Your task to perform on an android device: Open network settings Image 0: 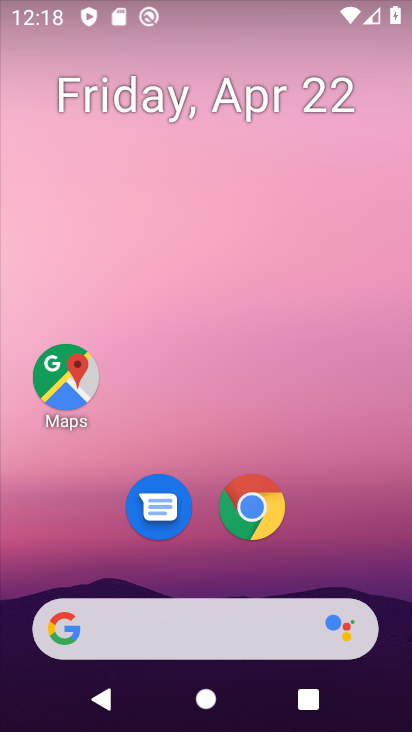
Step 0: drag from (329, 367) to (290, 109)
Your task to perform on an android device: Open network settings Image 1: 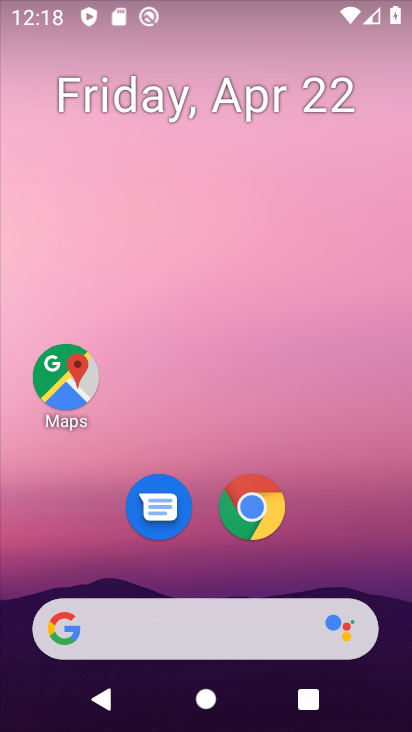
Step 1: drag from (350, 502) to (315, 160)
Your task to perform on an android device: Open network settings Image 2: 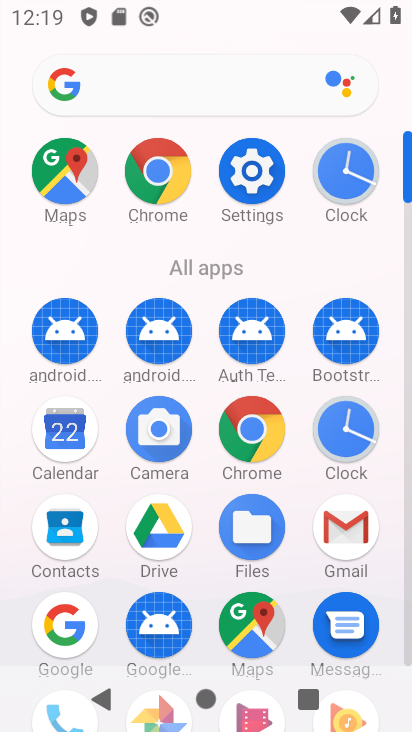
Step 2: click (262, 171)
Your task to perform on an android device: Open network settings Image 3: 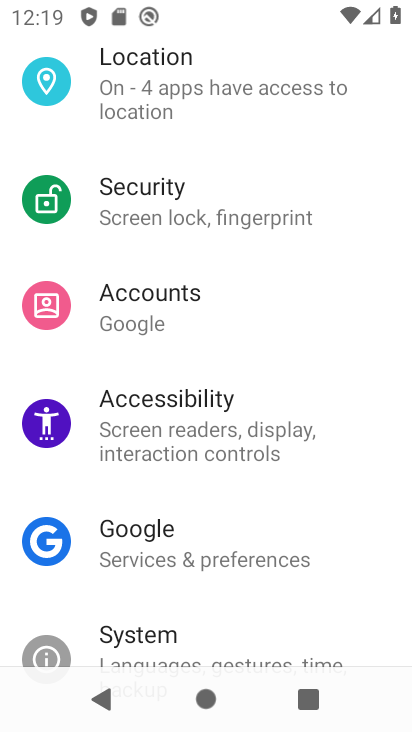
Step 3: drag from (345, 121) to (277, 600)
Your task to perform on an android device: Open network settings Image 4: 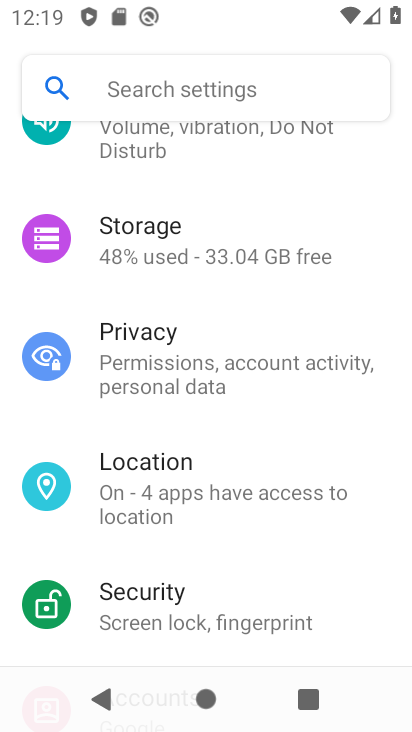
Step 4: drag from (291, 207) to (285, 634)
Your task to perform on an android device: Open network settings Image 5: 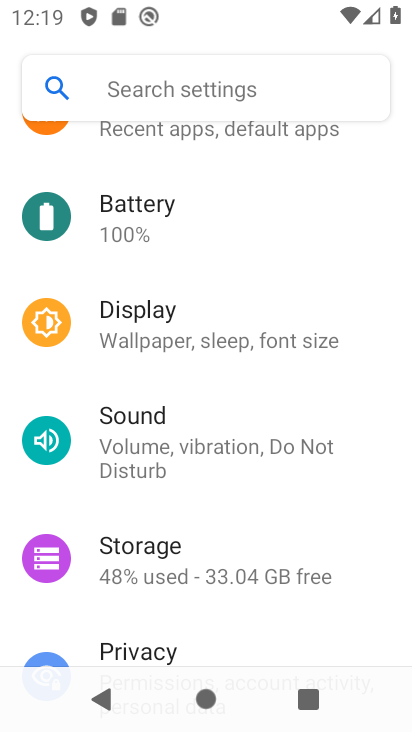
Step 5: drag from (203, 159) to (166, 630)
Your task to perform on an android device: Open network settings Image 6: 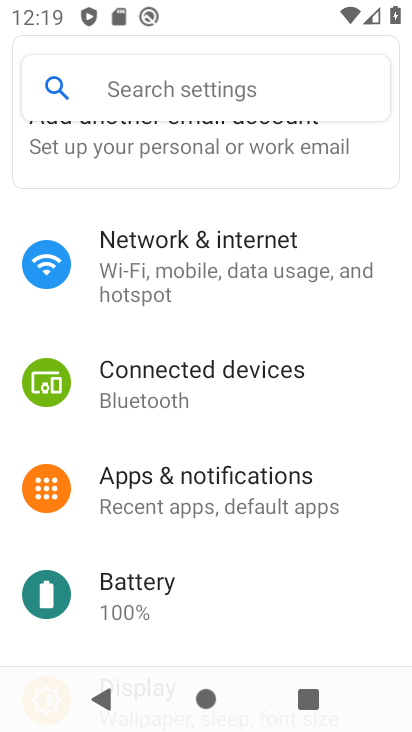
Step 6: click (181, 264)
Your task to perform on an android device: Open network settings Image 7: 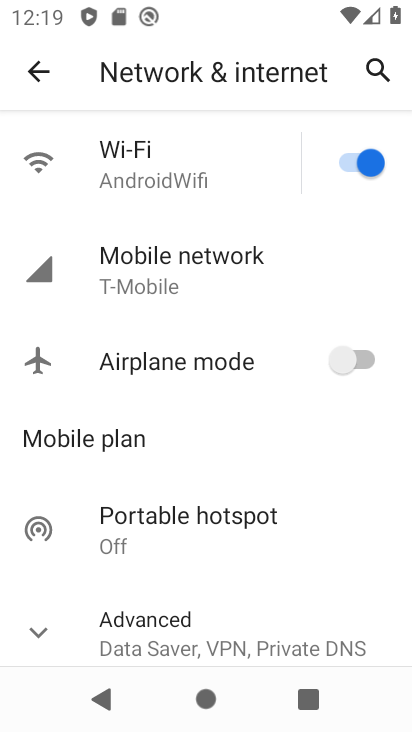
Step 7: click (164, 283)
Your task to perform on an android device: Open network settings Image 8: 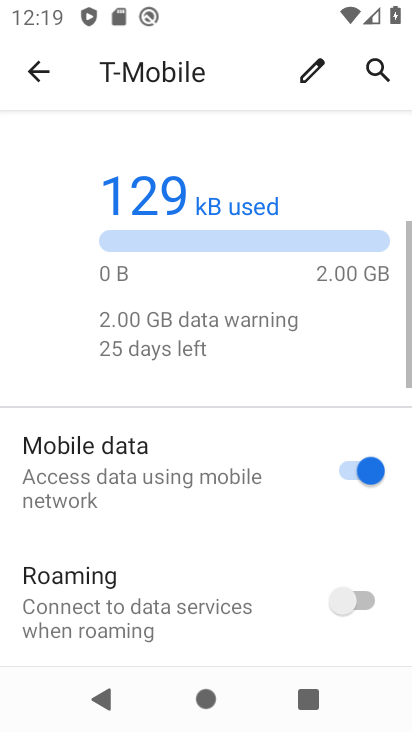
Step 8: task complete